Your task to perform on an android device: Go to location settings Image 0: 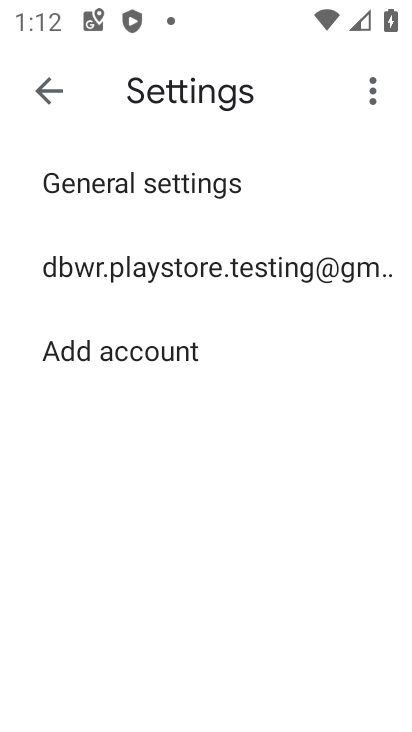
Step 0: press home button
Your task to perform on an android device: Go to location settings Image 1: 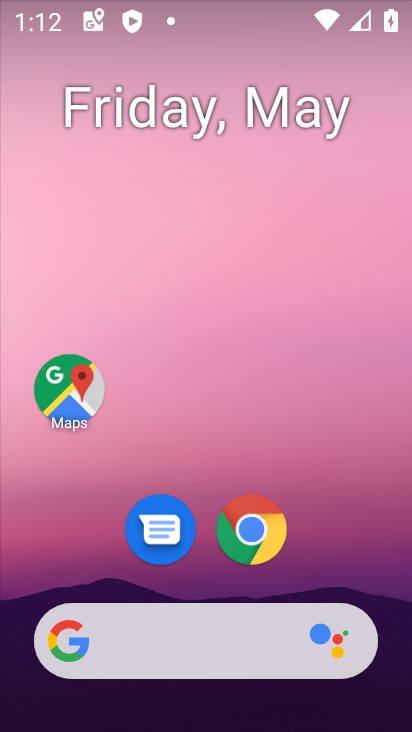
Step 1: drag from (355, 513) to (344, 121)
Your task to perform on an android device: Go to location settings Image 2: 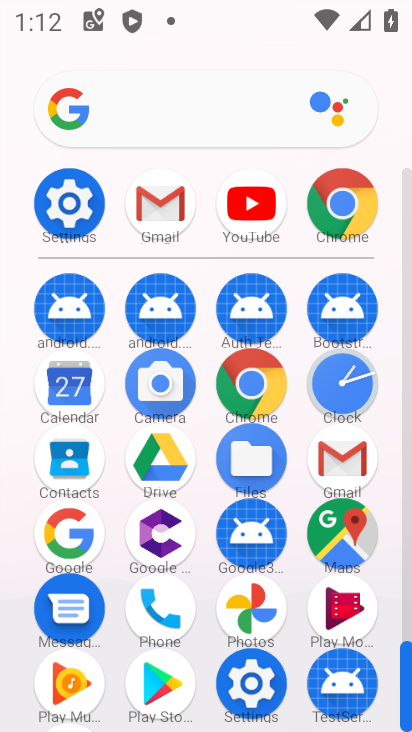
Step 2: click (47, 217)
Your task to perform on an android device: Go to location settings Image 3: 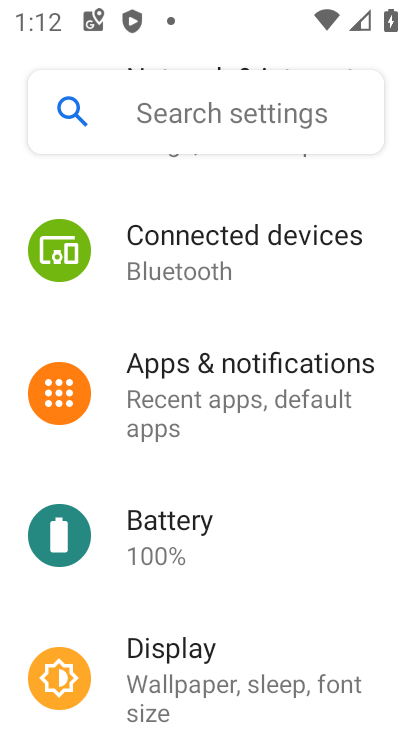
Step 3: drag from (274, 599) to (260, 305)
Your task to perform on an android device: Go to location settings Image 4: 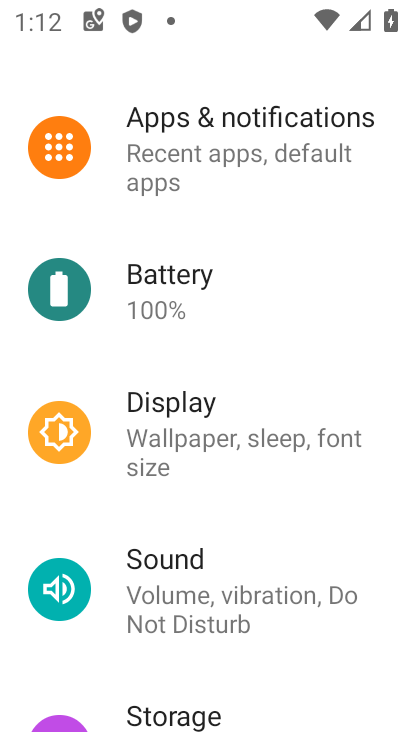
Step 4: drag from (213, 682) to (241, 173)
Your task to perform on an android device: Go to location settings Image 5: 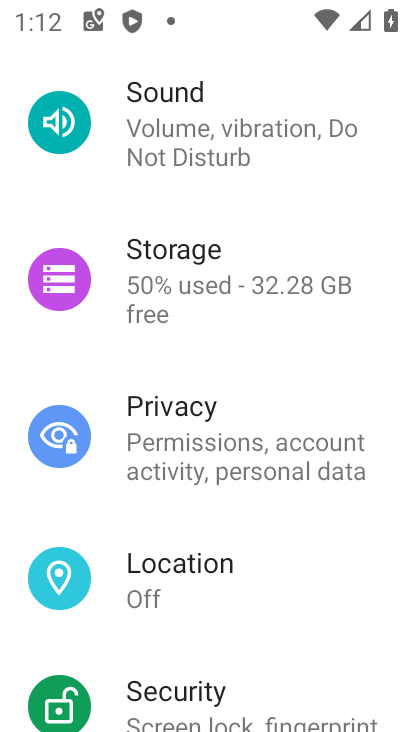
Step 5: click (199, 560)
Your task to perform on an android device: Go to location settings Image 6: 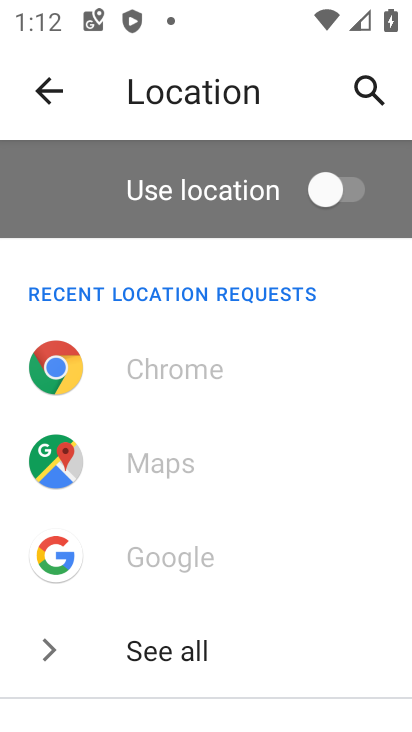
Step 6: click (310, 214)
Your task to perform on an android device: Go to location settings Image 7: 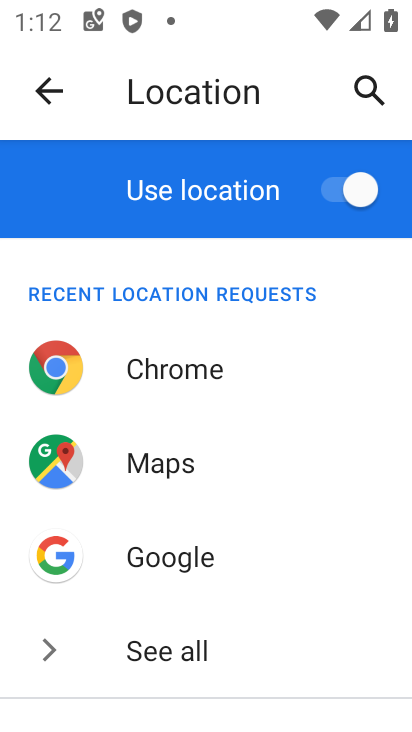
Step 7: task complete